Your task to perform on an android device: Check the settings for the Instagram app Image 0: 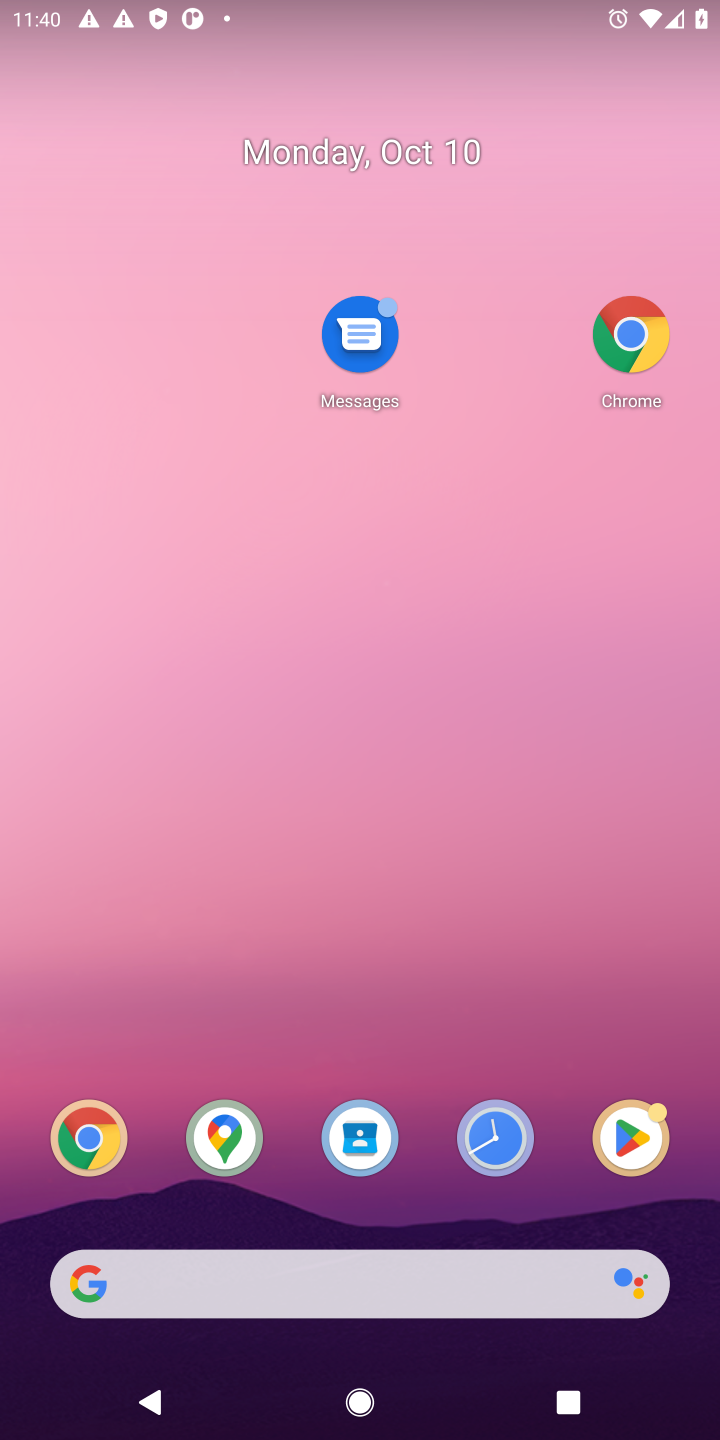
Step 0: click (648, 363)
Your task to perform on an android device: Check the settings for the Instagram app Image 1: 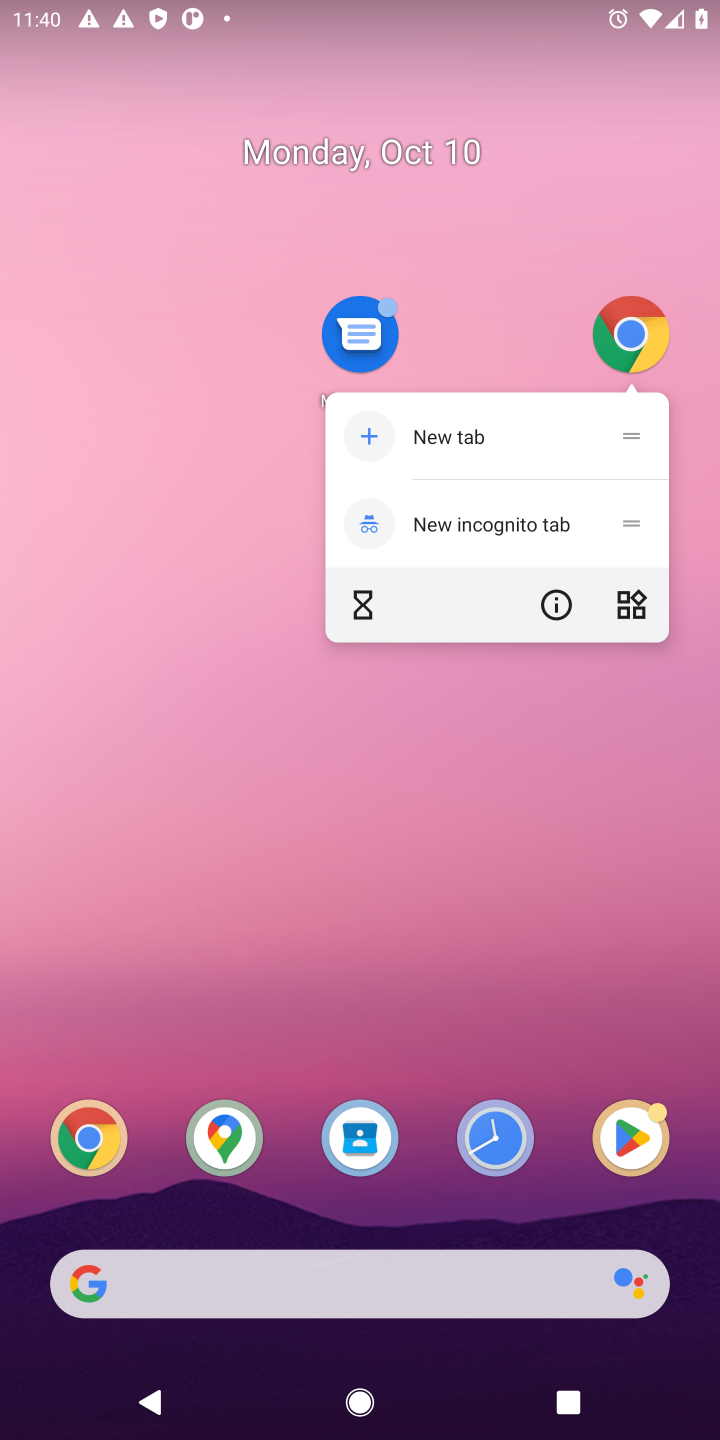
Step 1: task complete